Your task to perform on an android device: Open the calendar and show me this week's events? Image 0: 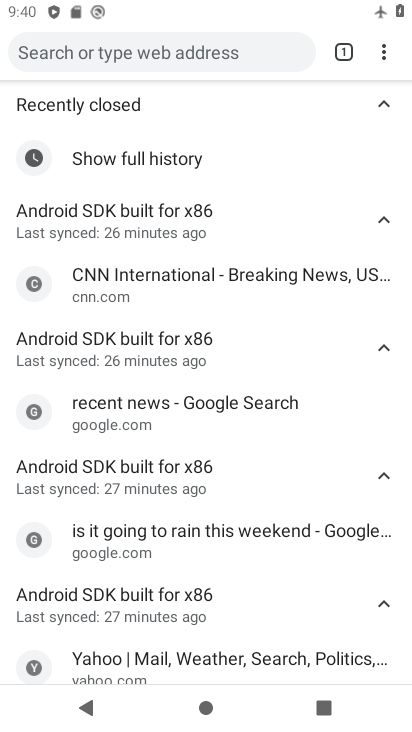
Step 0: press home button
Your task to perform on an android device: Open the calendar and show me this week's events? Image 1: 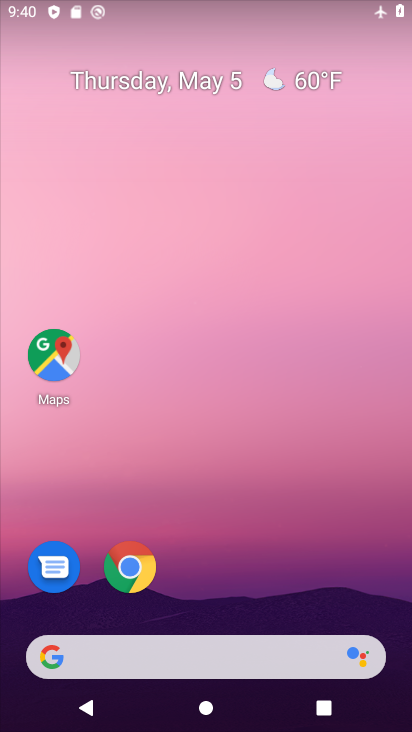
Step 1: drag from (253, 582) to (193, 280)
Your task to perform on an android device: Open the calendar and show me this week's events? Image 2: 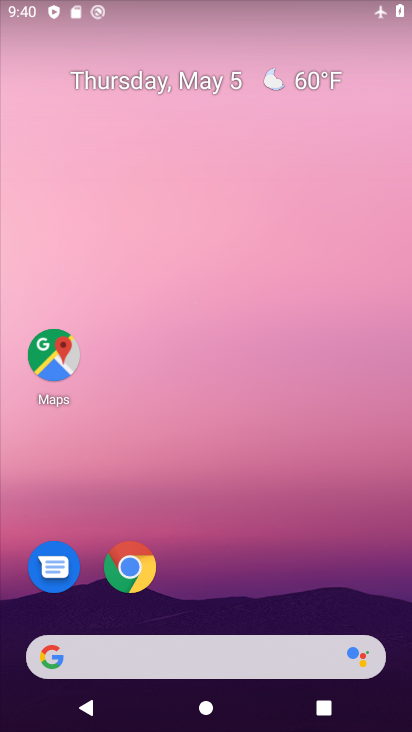
Step 2: drag from (235, 602) to (126, 37)
Your task to perform on an android device: Open the calendar and show me this week's events? Image 3: 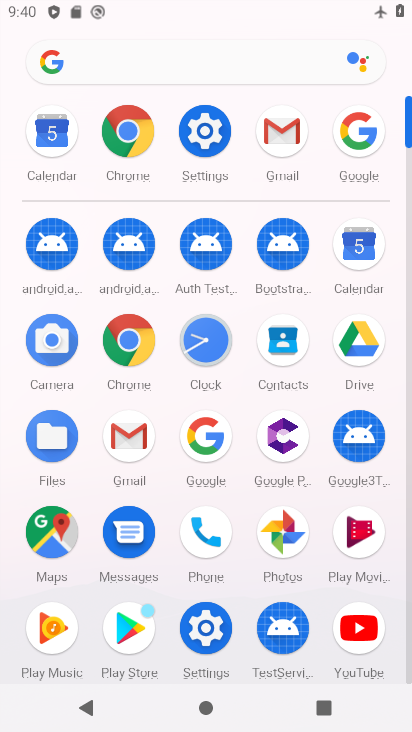
Step 3: click (345, 255)
Your task to perform on an android device: Open the calendar and show me this week's events? Image 4: 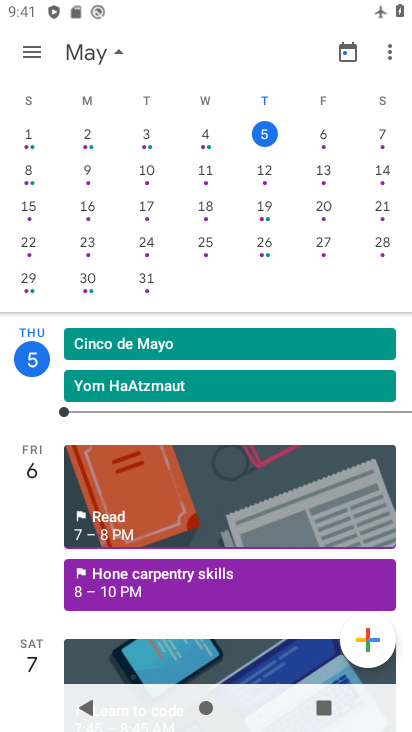
Step 4: click (372, 132)
Your task to perform on an android device: Open the calendar and show me this week's events? Image 5: 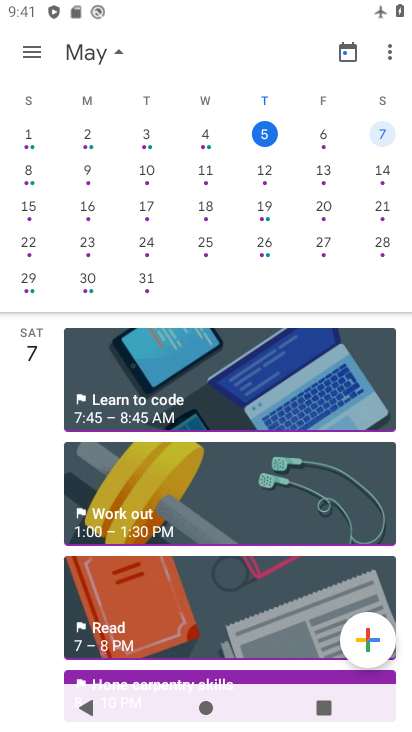
Step 5: drag from (236, 553) to (246, 457)
Your task to perform on an android device: Open the calendar and show me this week's events? Image 6: 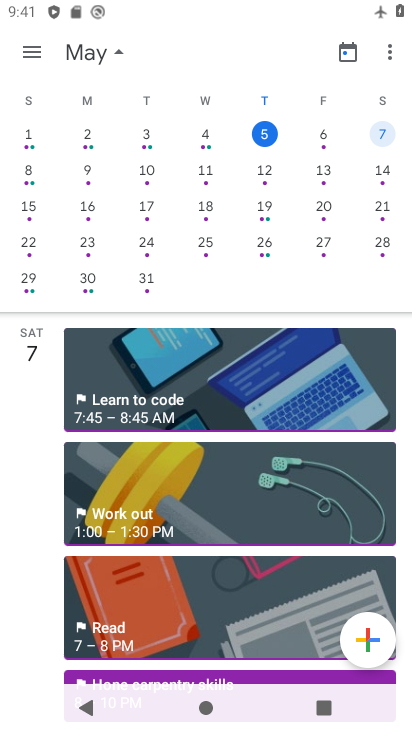
Step 6: drag from (230, 641) to (233, 495)
Your task to perform on an android device: Open the calendar and show me this week's events? Image 7: 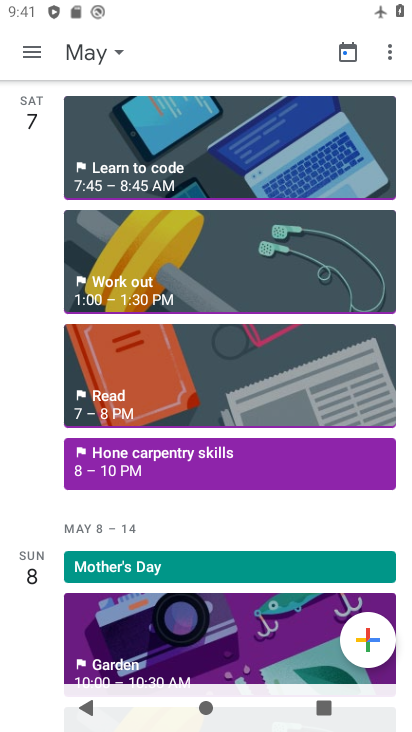
Step 7: click (162, 465)
Your task to perform on an android device: Open the calendar and show me this week's events? Image 8: 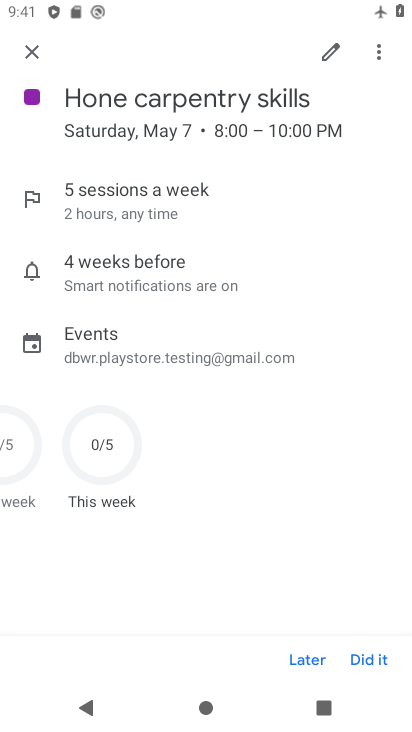
Step 8: task complete